Your task to perform on an android device: turn on location history Image 0: 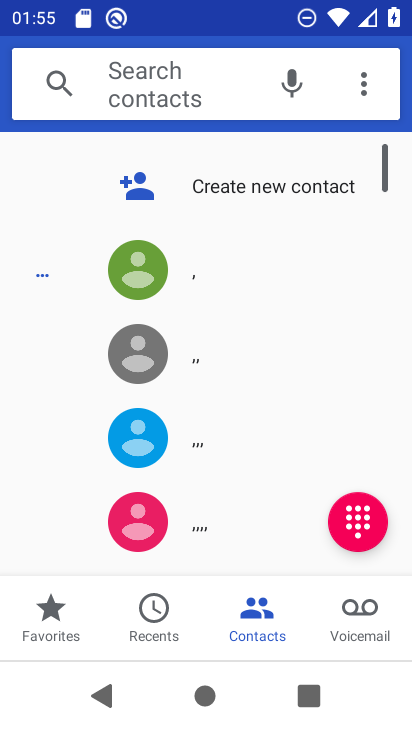
Step 0: press home button
Your task to perform on an android device: turn on location history Image 1: 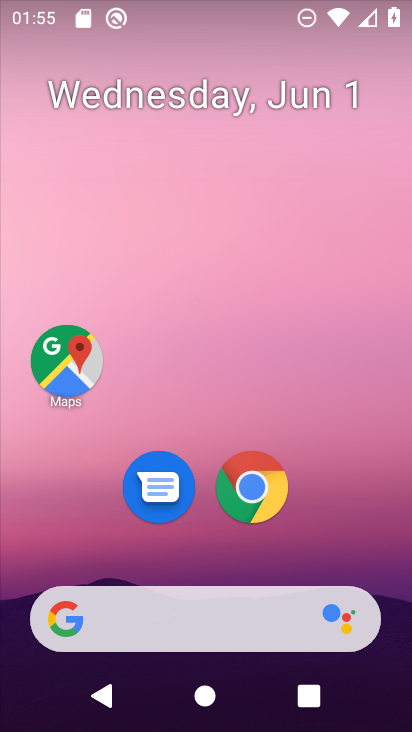
Step 1: drag from (314, 549) to (288, 258)
Your task to perform on an android device: turn on location history Image 2: 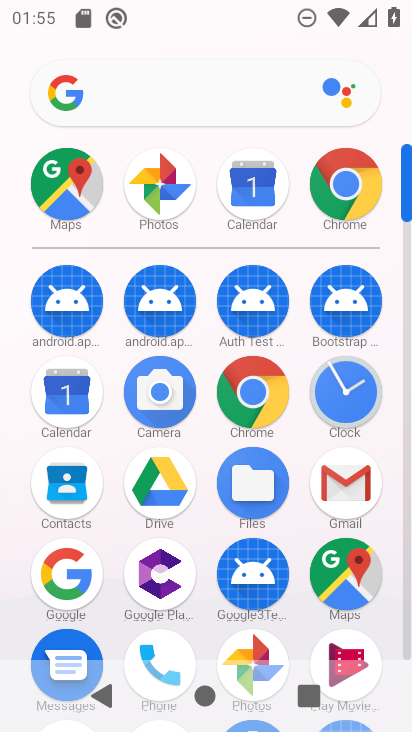
Step 2: drag from (201, 555) to (207, 326)
Your task to perform on an android device: turn on location history Image 3: 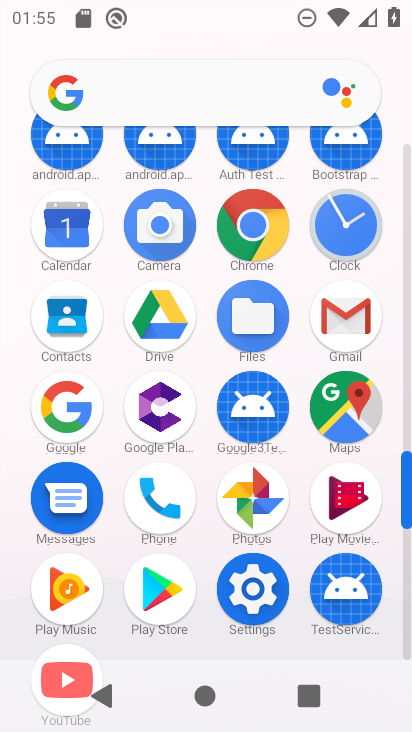
Step 3: click (256, 598)
Your task to perform on an android device: turn on location history Image 4: 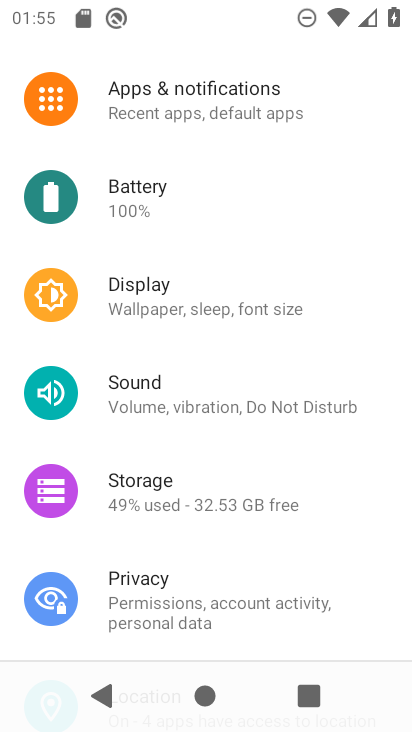
Step 4: drag from (222, 567) to (232, 219)
Your task to perform on an android device: turn on location history Image 5: 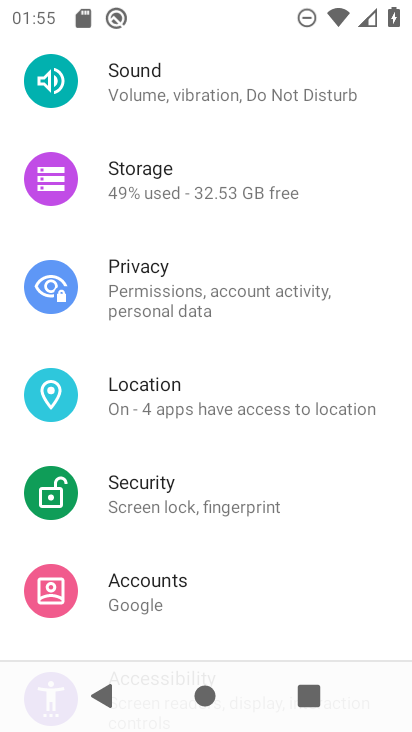
Step 5: click (217, 406)
Your task to perform on an android device: turn on location history Image 6: 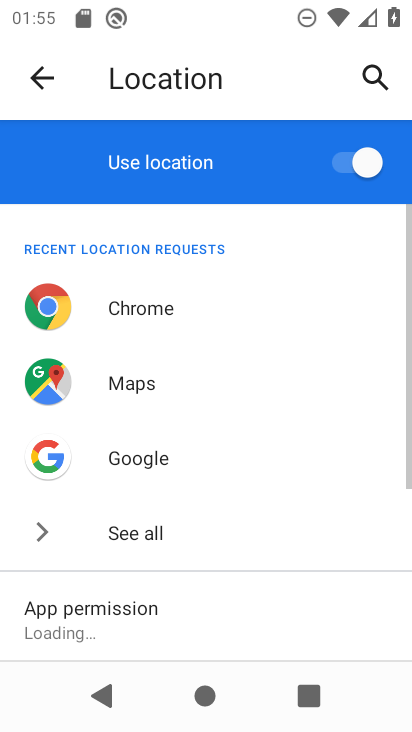
Step 6: drag from (194, 573) to (234, 274)
Your task to perform on an android device: turn on location history Image 7: 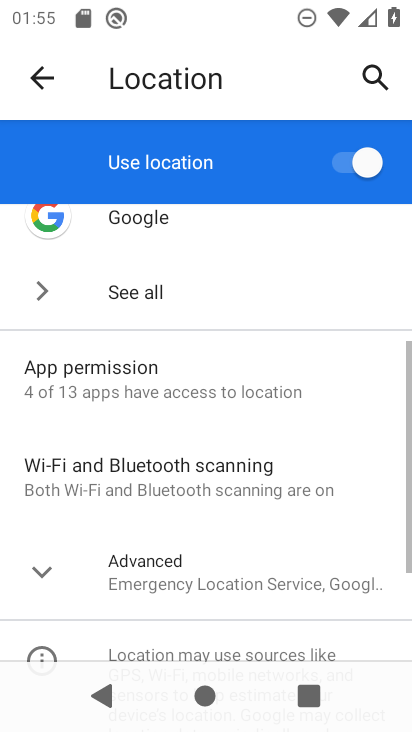
Step 7: click (148, 568)
Your task to perform on an android device: turn on location history Image 8: 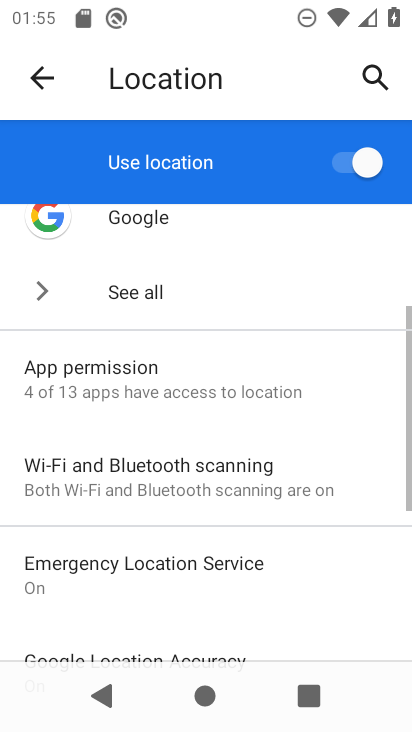
Step 8: drag from (190, 550) to (230, 244)
Your task to perform on an android device: turn on location history Image 9: 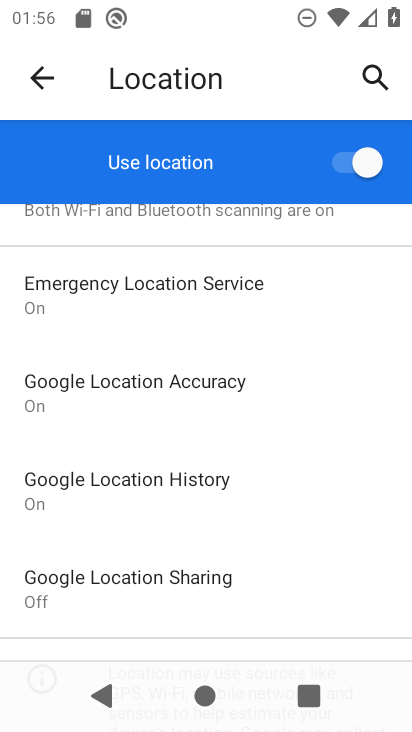
Step 9: click (150, 488)
Your task to perform on an android device: turn on location history Image 10: 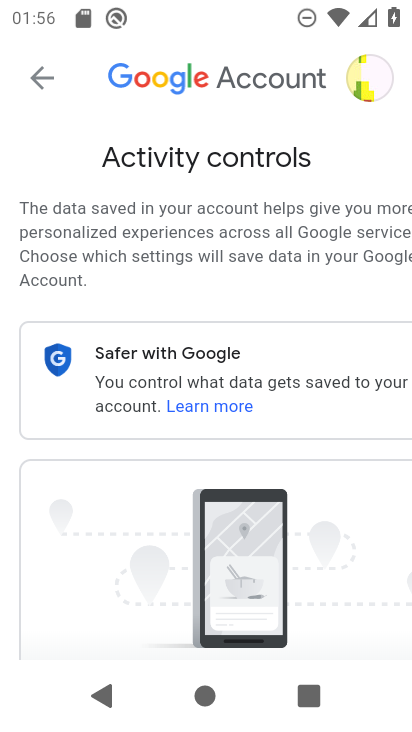
Step 10: drag from (336, 564) to (328, 215)
Your task to perform on an android device: turn on location history Image 11: 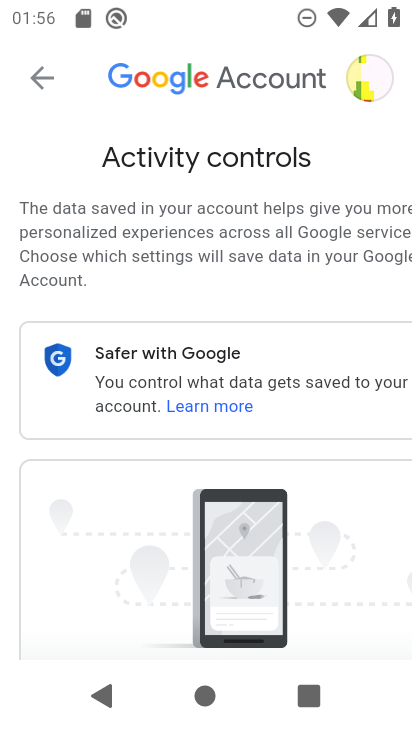
Step 11: drag from (307, 596) to (318, 149)
Your task to perform on an android device: turn on location history Image 12: 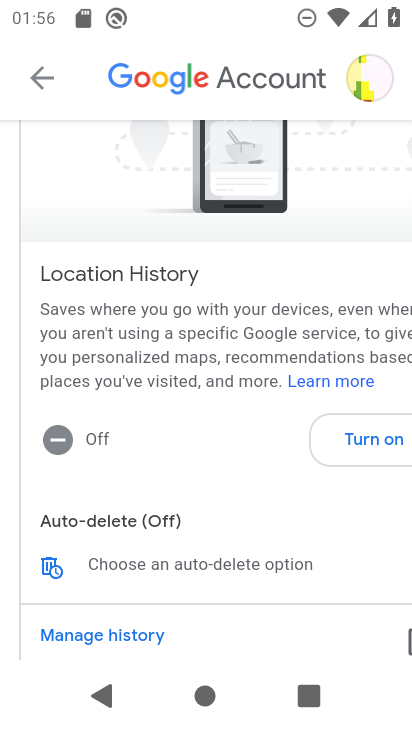
Step 12: click (365, 420)
Your task to perform on an android device: turn on location history Image 13: 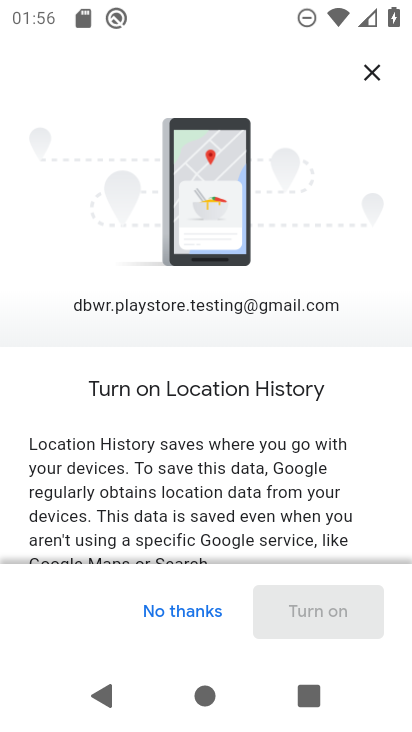
Step 13: click (165, 609)
Your task to perform on an android device: turn on location history Image 14: 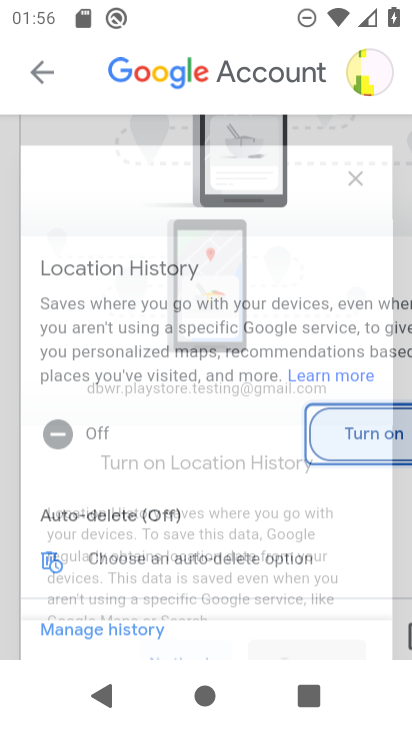
Step 14: click (347, 600)
Your task to perform on an android device: turn on location history Image 15: 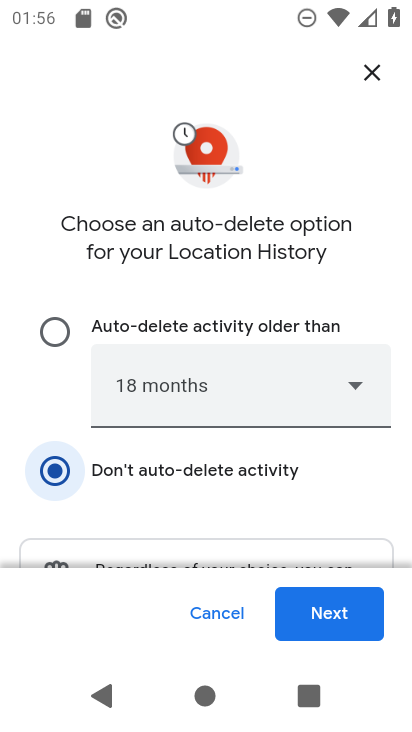
Step 15: click (368, 76)
Your task to perform on an android device: turn on location history Image 16: 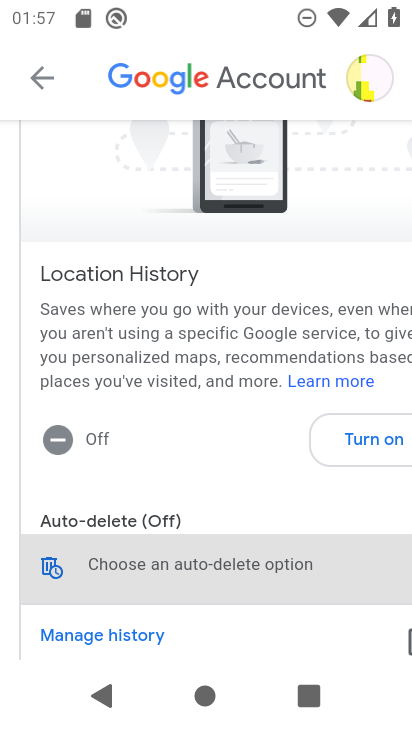
Step 16: task complete